Your task to perform on an android device: Show me popular games on the Play Store Image 0: 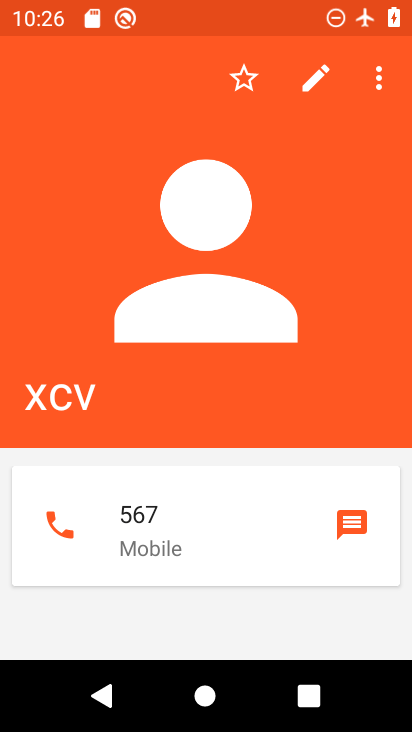
Step 0: press home button
Your task to perform on an android device: Show me popular games on the Play Store Image 1: 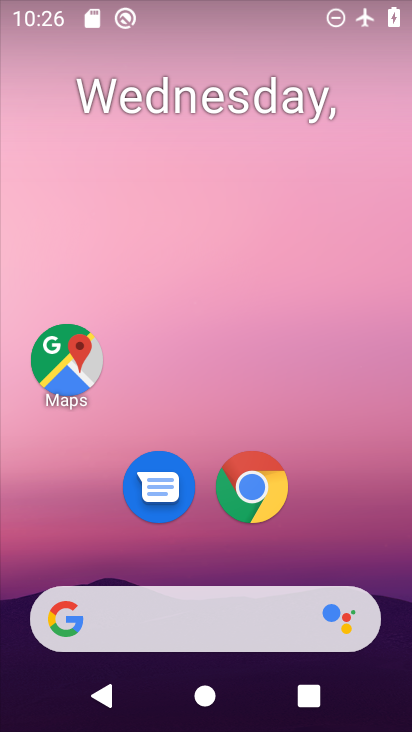
Step 1: drag from (335, 509) to (153, 53)
Your task to perform on an android device: Show me popular games on the Play Store Image 2: 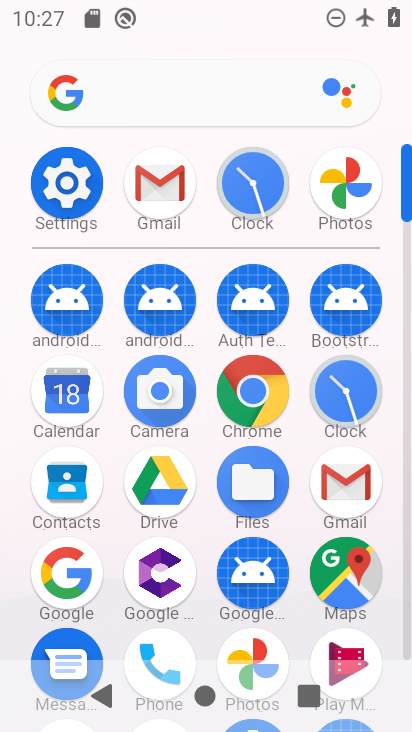
Step 2: drag from (203, 621) to (185, 204)
Your task to perform on an android device: Show me popular games on the Play Store Image 3: 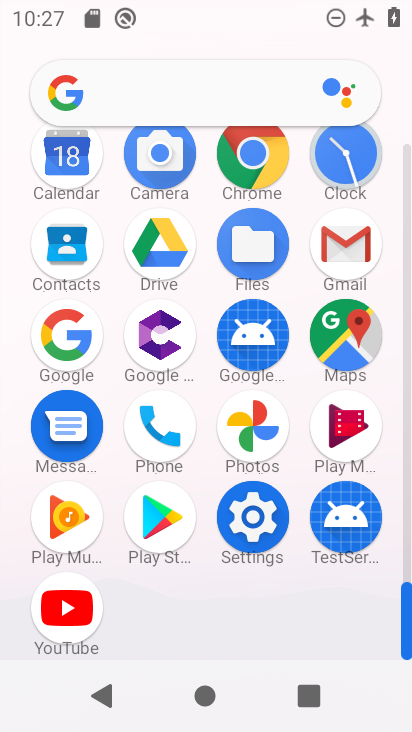
Step 3: click (162, 510)
Your task to perform on an android device: Show me popular games on the Play Store Image 4: 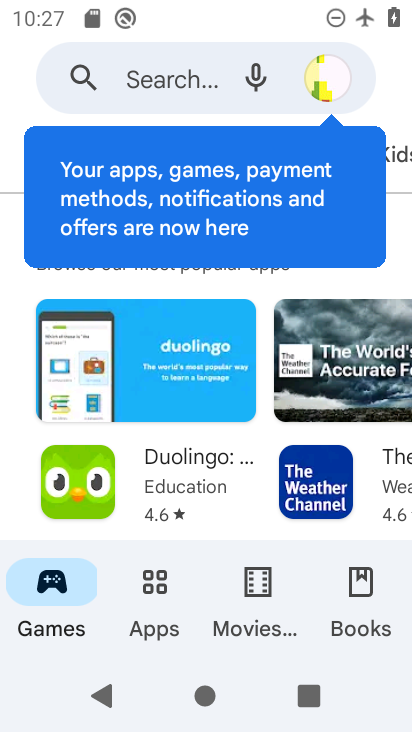
Step 4: task complete